Your task to perform on an android device: What's on my calendar today? Image 0: 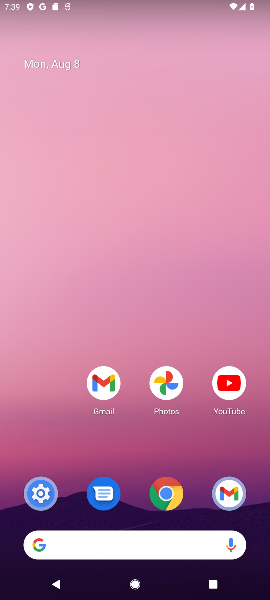
Step 0: drag from (144, 550) to (113, 61)
Your task to perform on an android device: What's on my calendar today? Image 1: 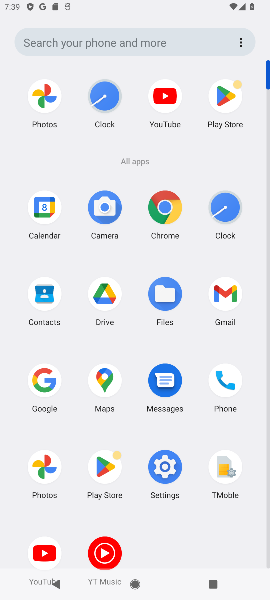
Step 1: click (37, 216)
Your task to perform on an android device: What's on my calendar today? Image 2: 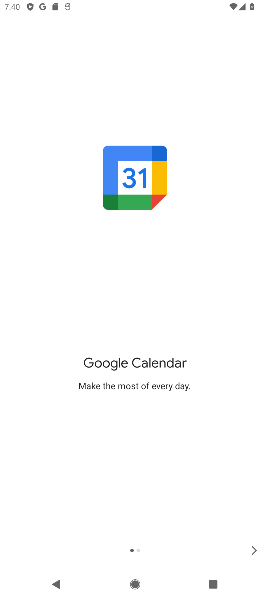
Step 2: click (249, 547)
Your task to perform on an android device: What's on my calendar today? Image 3: 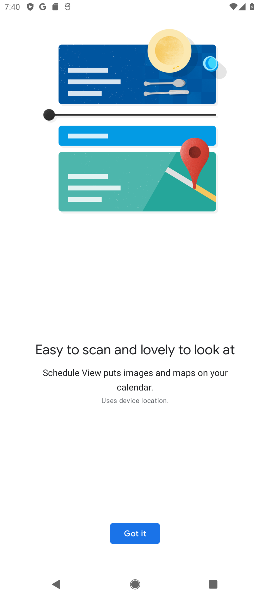
Step 3: click (128, 537)
Your task to perform on an android device: What's on my calendar today? Image 4: 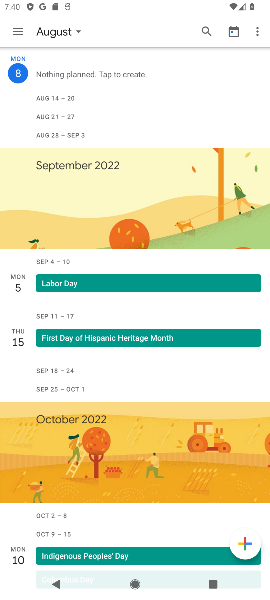
Step 4: task complete